Your task to perform on an android device: Search for seafood restaurants on Google Maps Image 0: 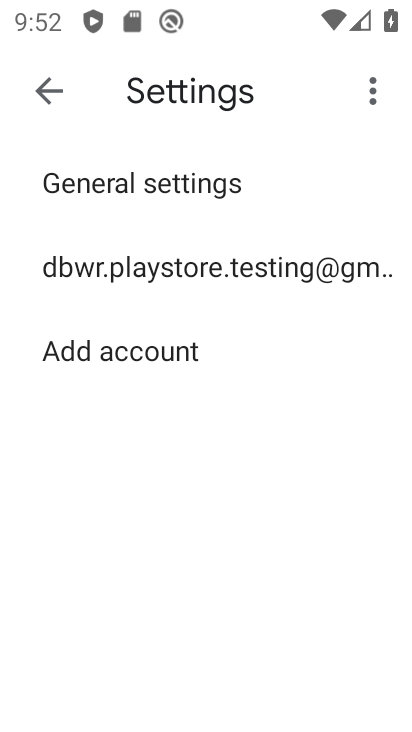
Step 0: press home button
Your task to perform on an android device: Search for seafood restaurants on Google Maps Image 1: 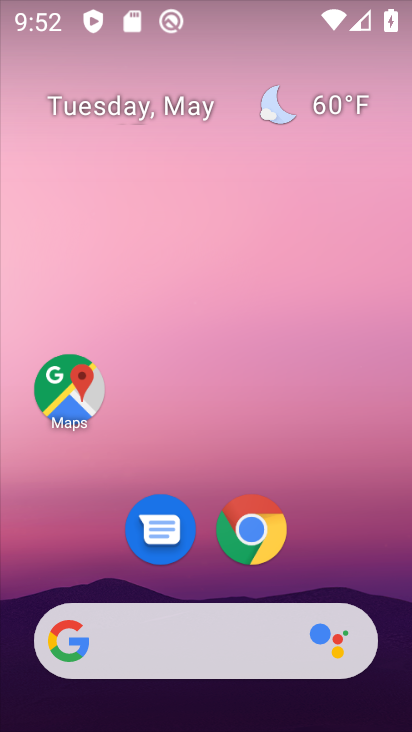
Step 1: click (81, 403)
Your task to perform on an android device: Search for seafood restaurants on Google Maps Image 2: 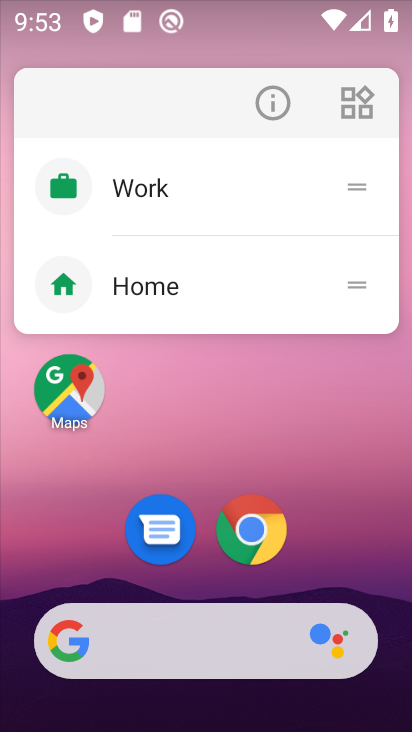
Step 2: click (65, 404)
Your task to perform on an android device: Search for seafood restaurants on Google Maps Image 3: 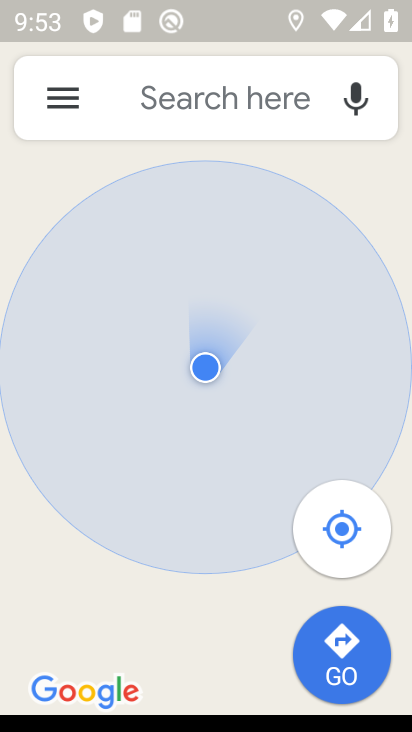
Step 3: click (180, 92)
Your task to perform on an android device: Search for seafood restaurants on Google Maps Image 4: 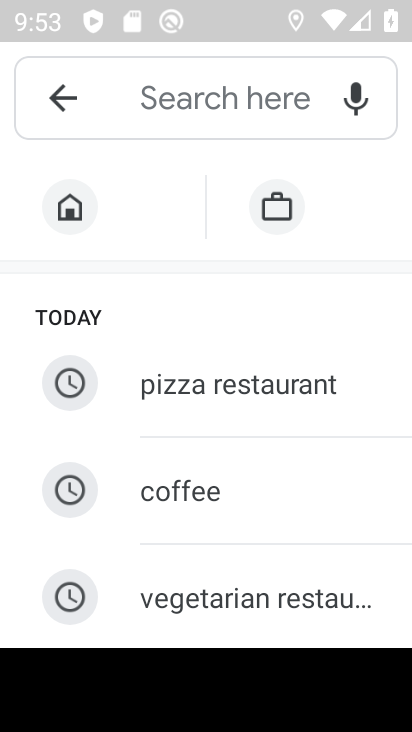
Step 4: drag from (208, 586) to (178, 381)
Your task to perform on an android device: Search for seafood restaurants on Google Maps Image 5: 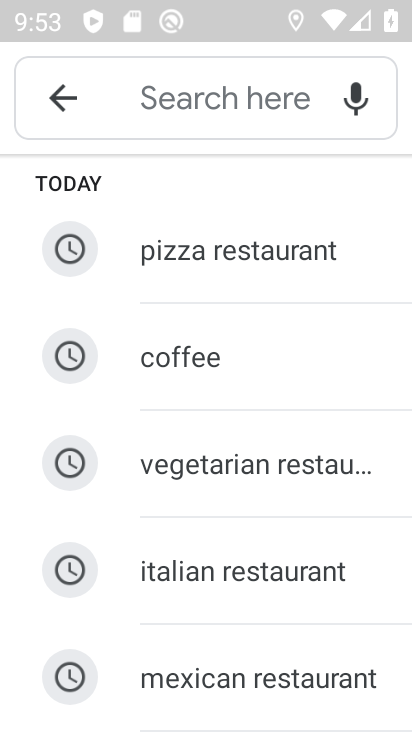
Step 5: drag from (219, 688) to (179, 411)
Your task to perform on an android device: Search for seafood restaurants on Google Maps Image 6: 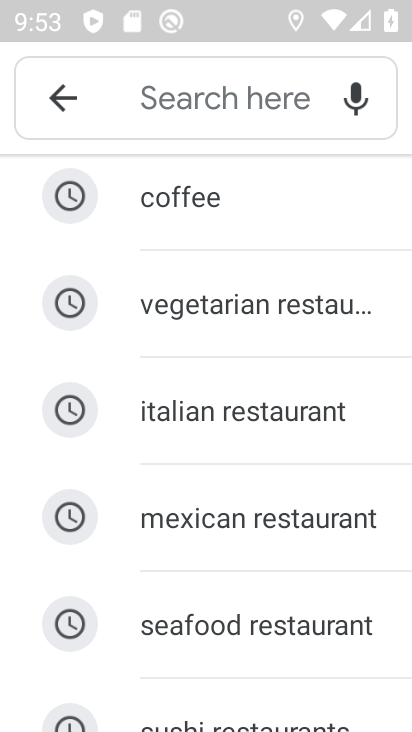
Step 6: click (198, 627)
Your task to perform on an android device: Search for seafood restaurants on Google Maps Image 7: 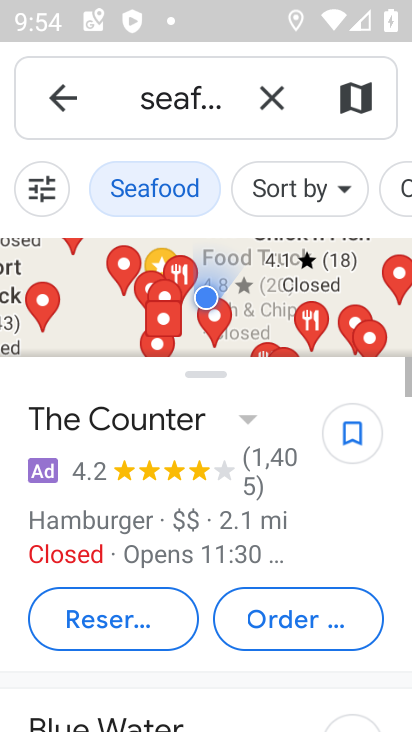
Step 7: task complete